Your task to perform on an android device: Clear the cart on ebay. Image 0: 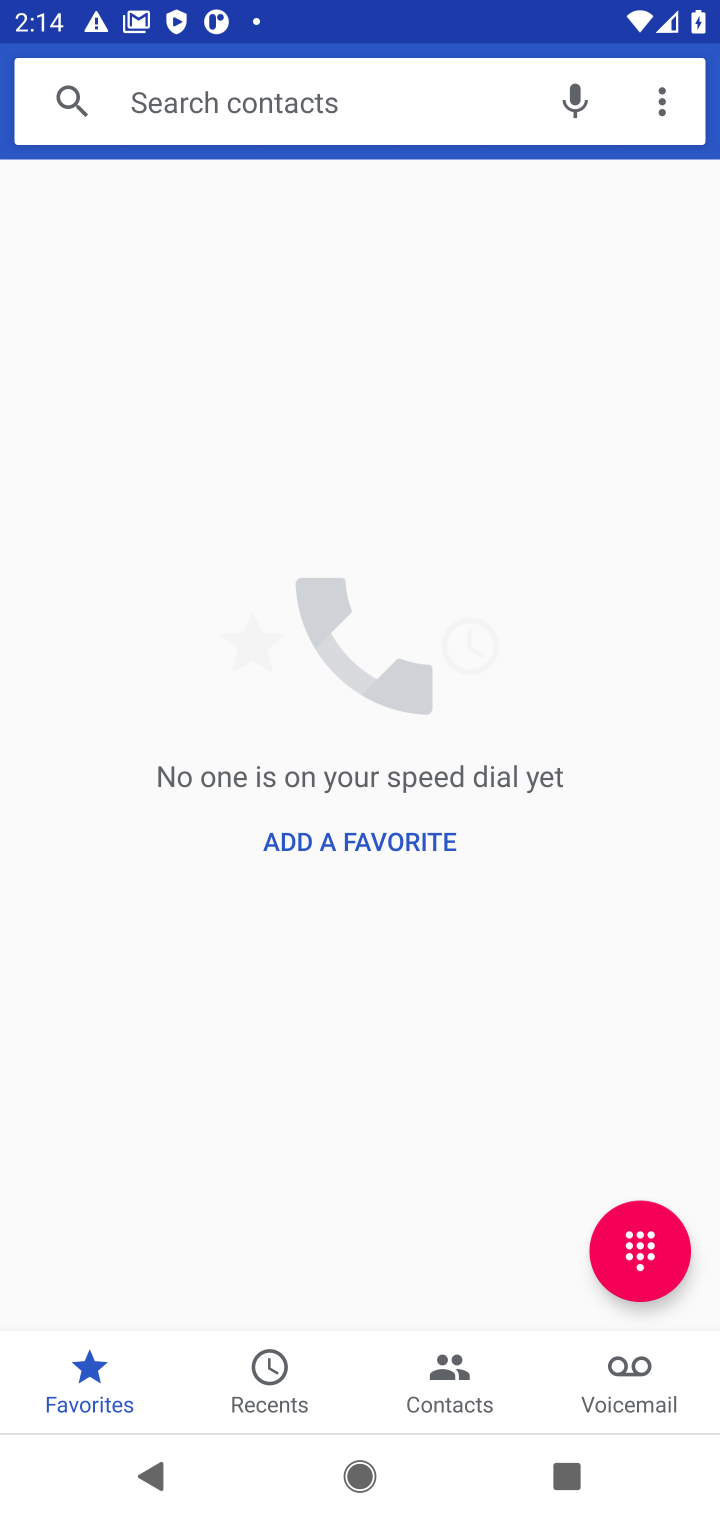
Step 0: press home button
Your task to perform on an android device: Clear the cart on ebay. Image 1: 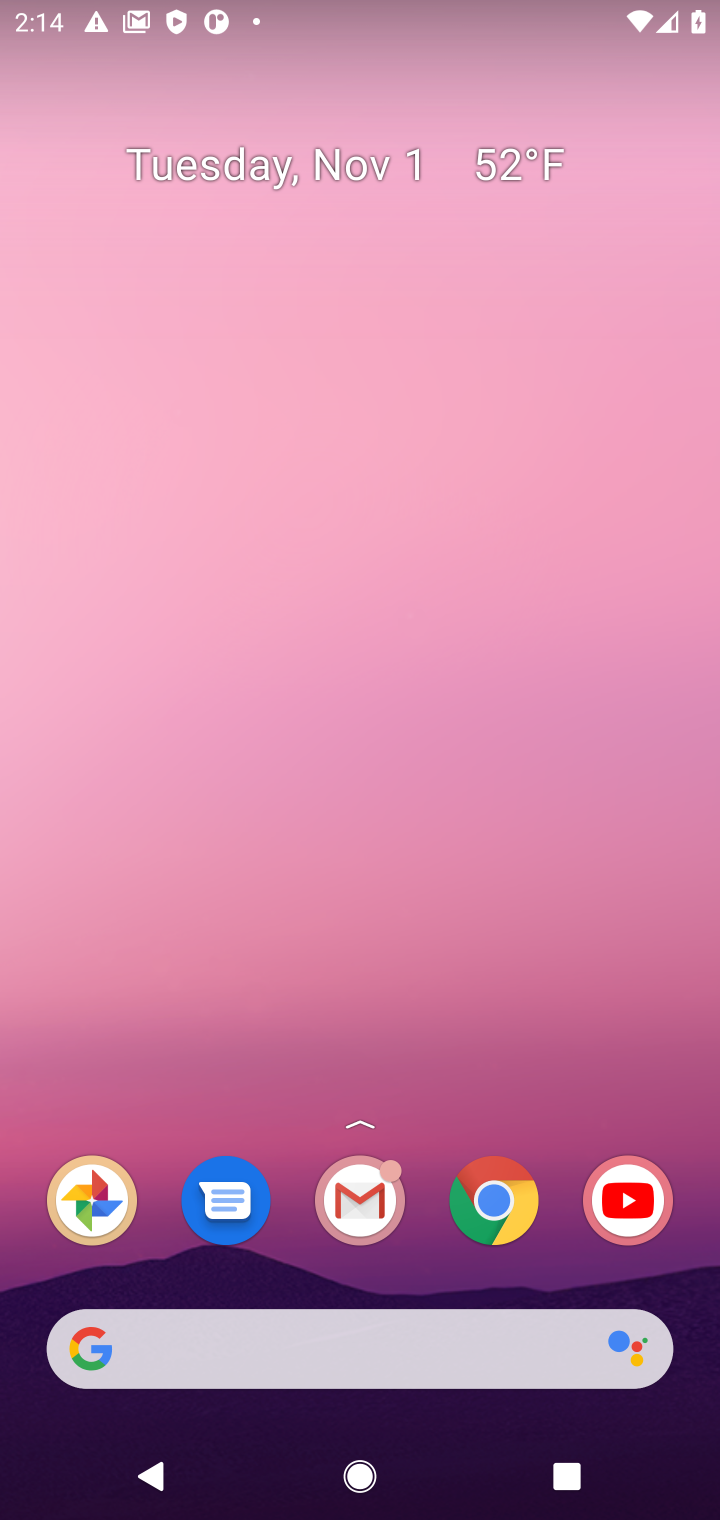
Step 1: click (79, 1351)
Your task to perform on an android device: Clear the cart on ebay. Image 2: 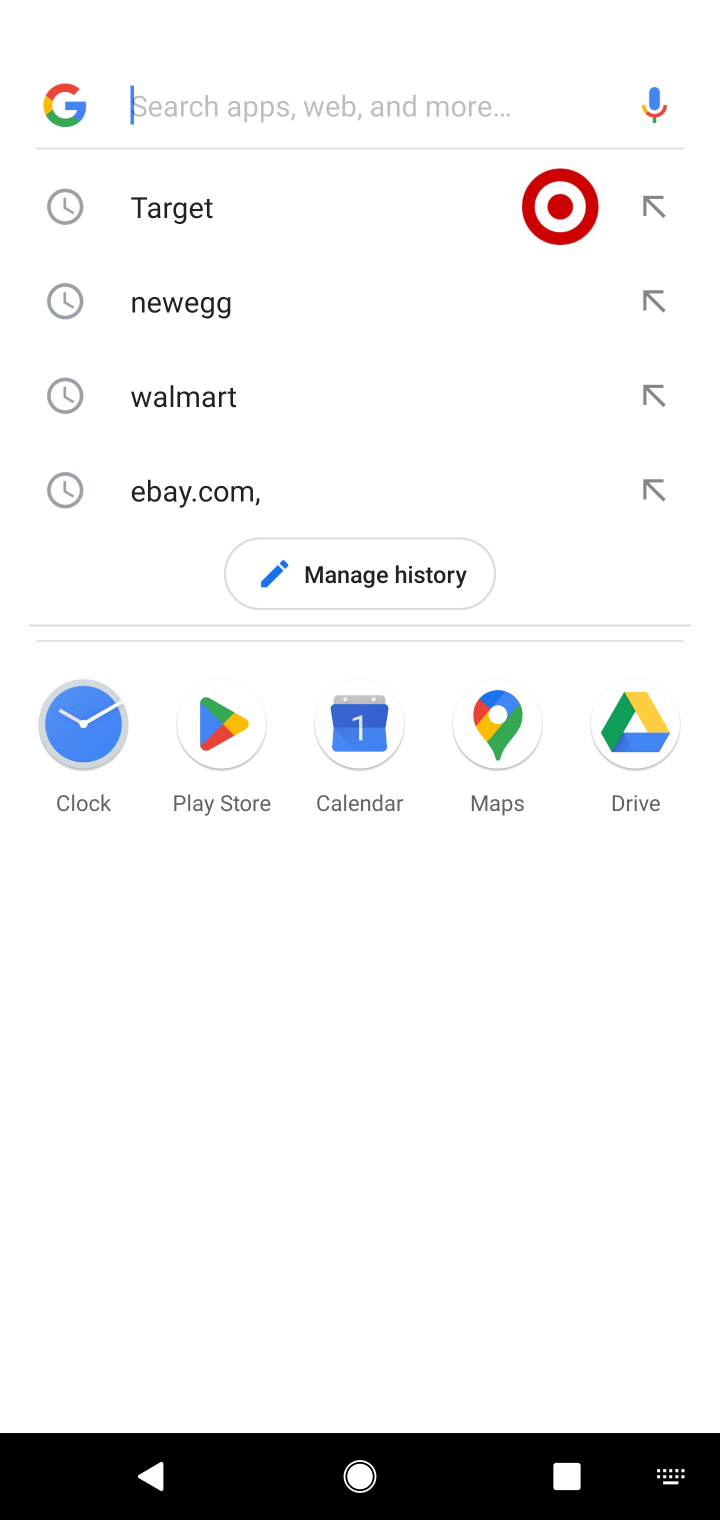
Step 2: click (283, 119)
Your task to perform on an android device: Clear the cart on ebay. Image 3: 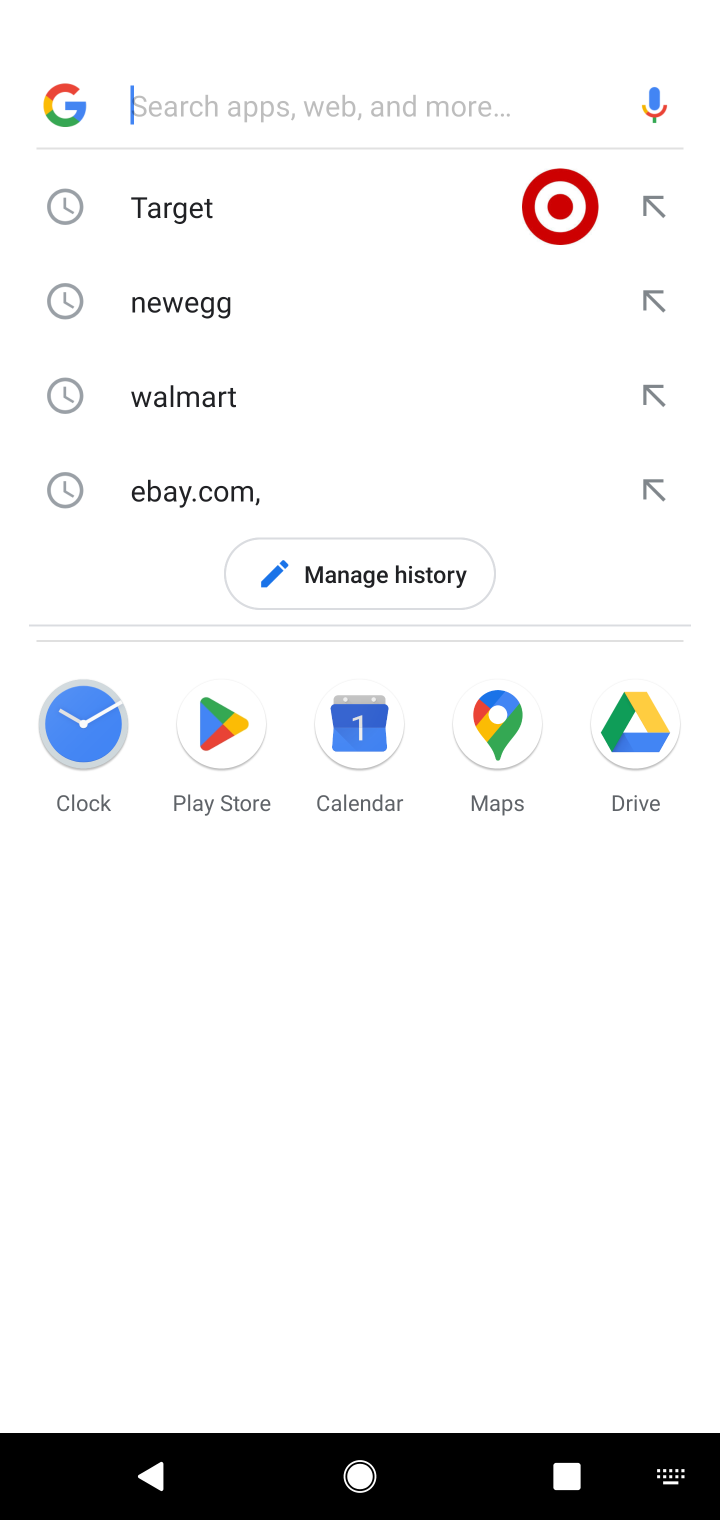
Step 3: type "ebay"
Your task to perform on an android device: Clear the cart on ebay. Image 4: 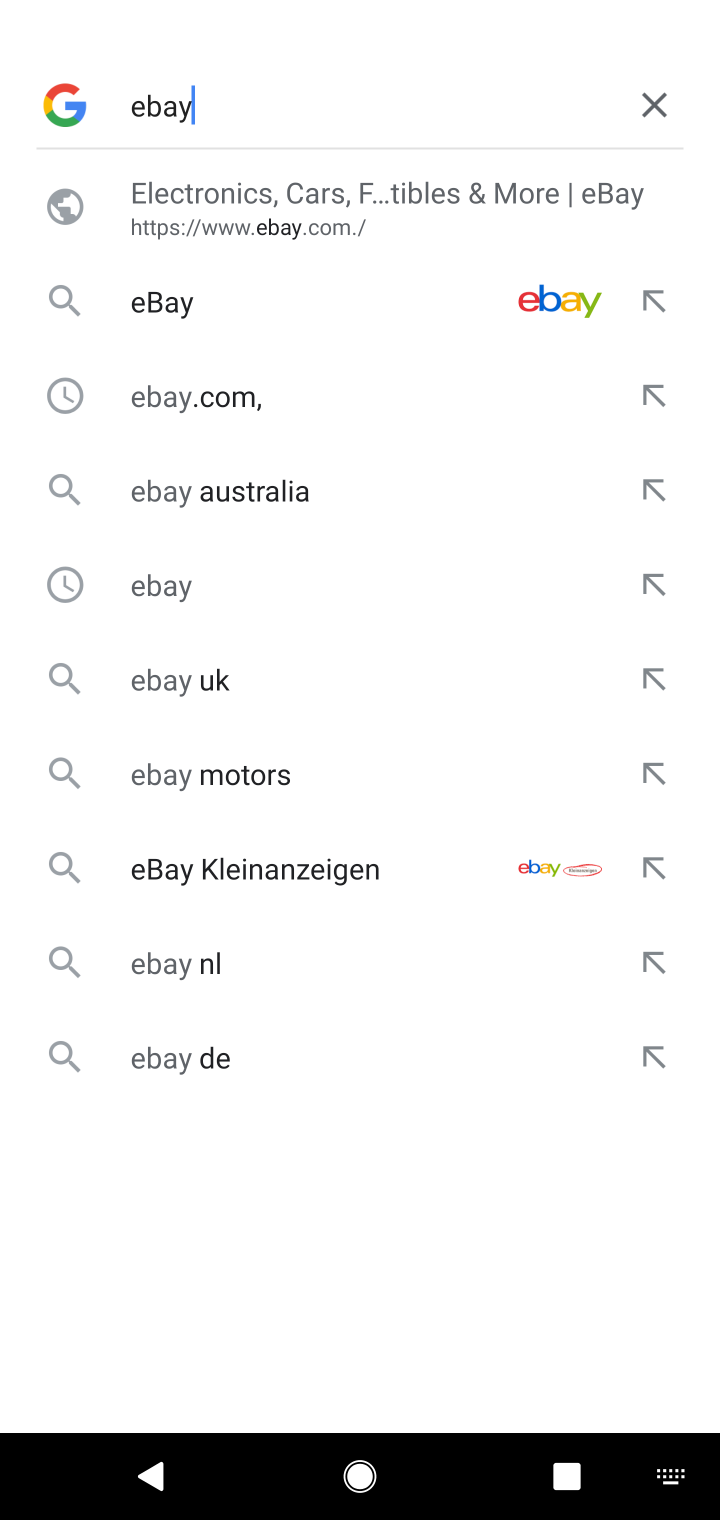
Step 4: click (274, 297)
Your task to perform on an android device: Clear the cart on ebay. Image 5: 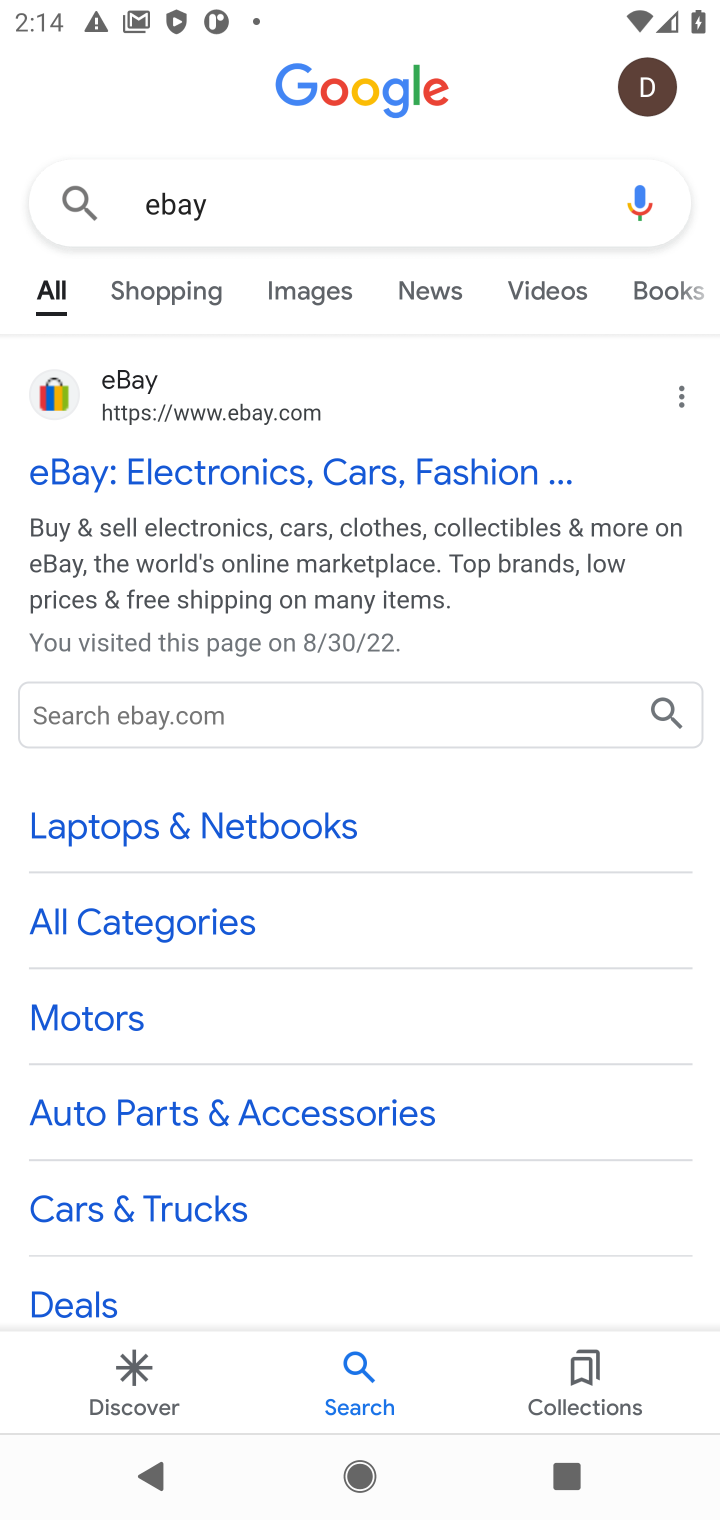
Step 5: click (302, 468)
Your task to perform on an android device: Clear the cart on ebay. Image 6: 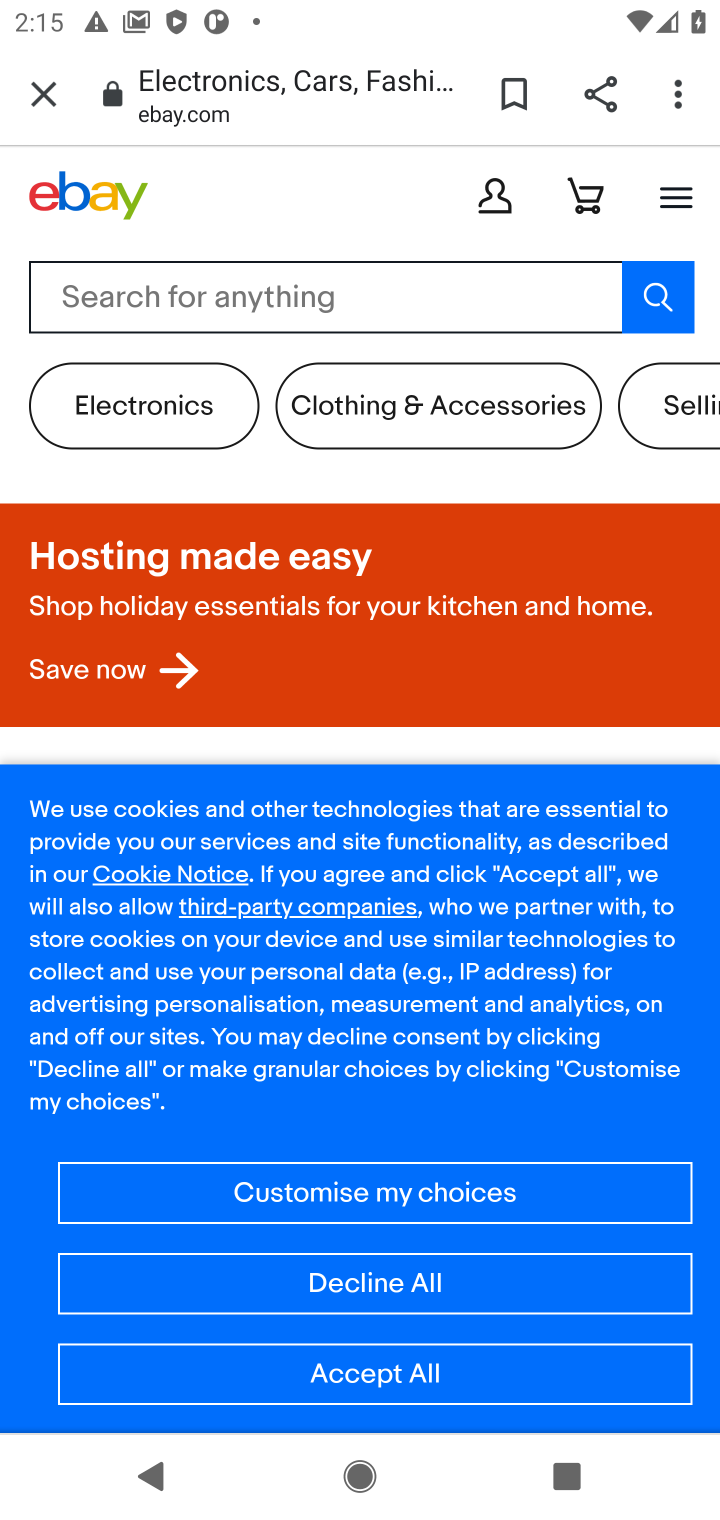
Step 6: click (350, 1388)
Your task to perform on an android device: Clear the cart on ebay. Image 7: 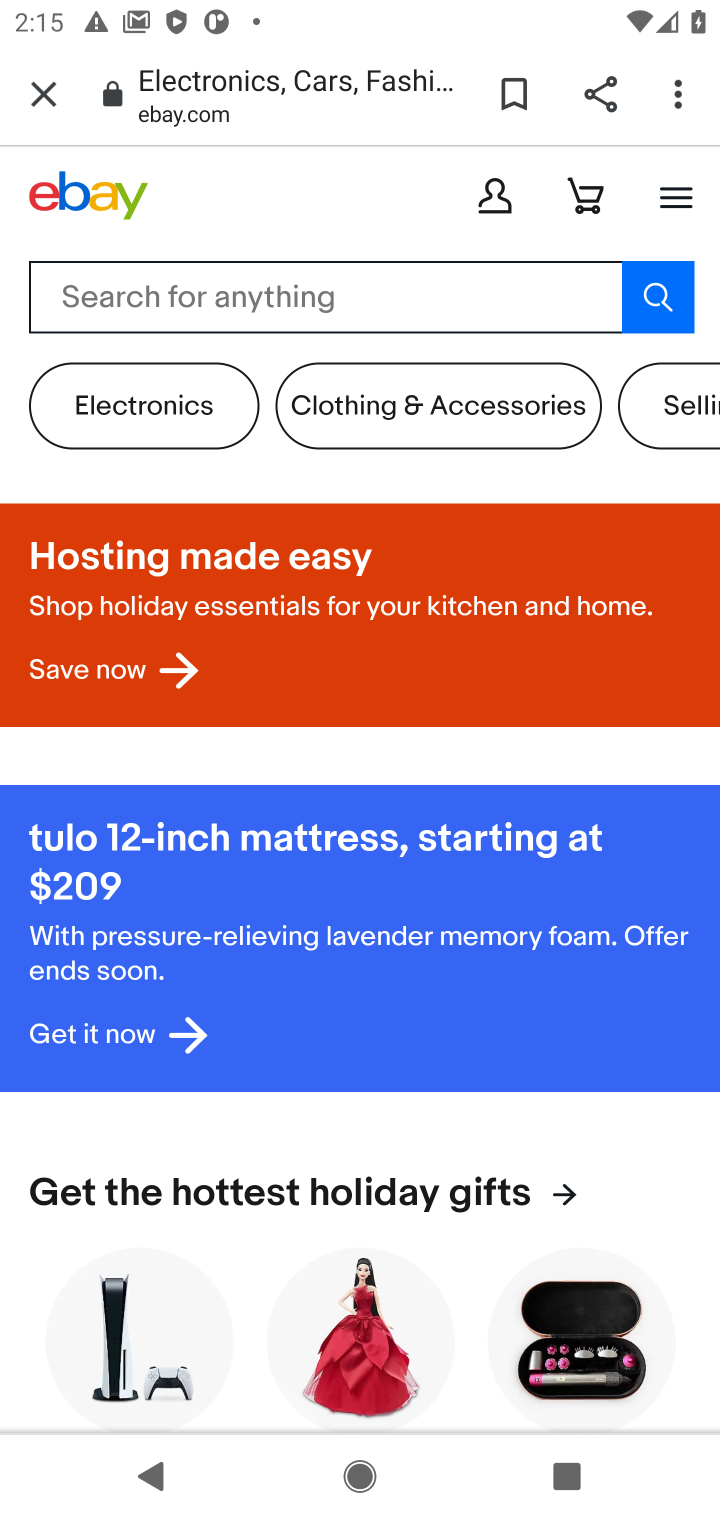
Step 7: click (132, 305)
Your task to perform on an android device: Clear the cart on ebay. Image 8: 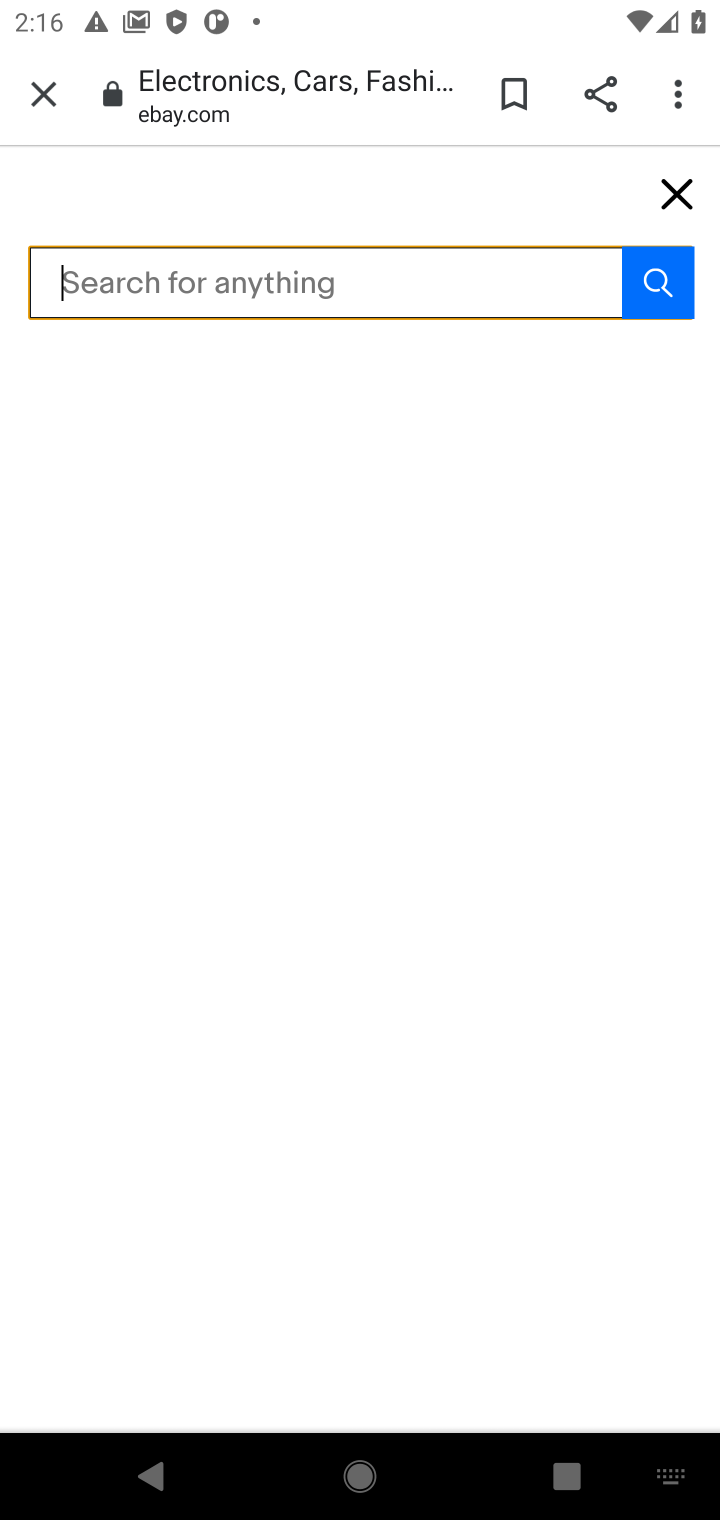
Step 8: type "ebay"
Your task to perform on an android device: Clear the cart on ebay. Image 9: 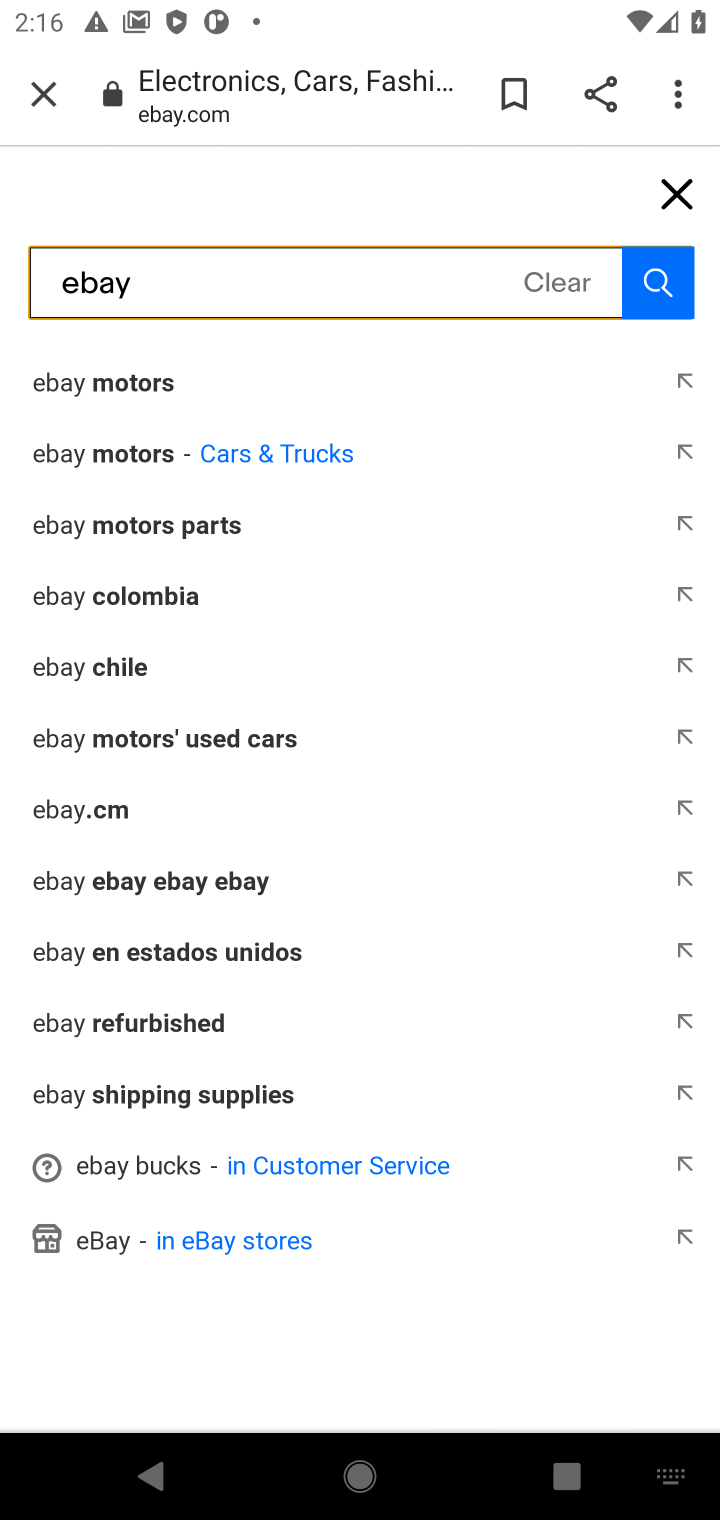
Step 9: click (140, 400)
Your task to perform on an android device: Clear the cart on ebay. Image 10: 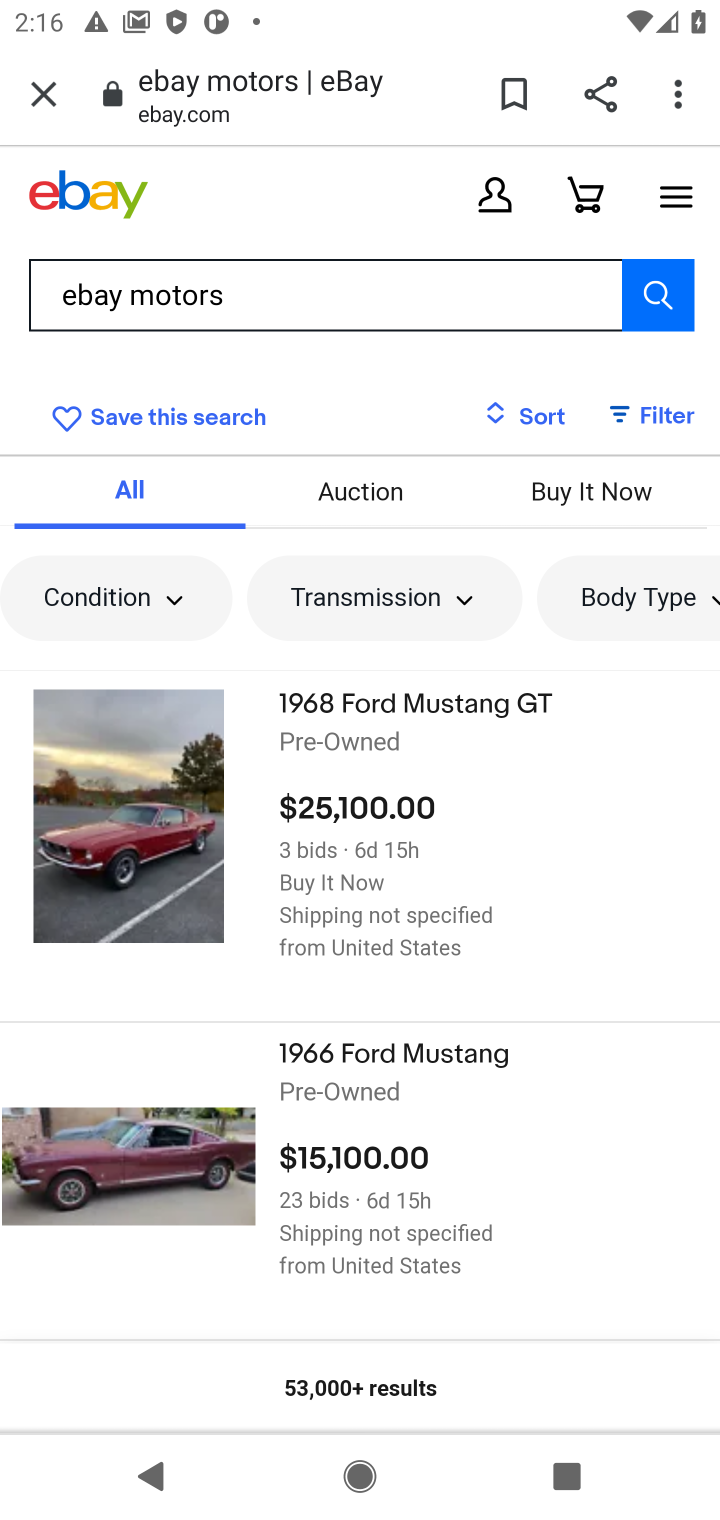
Step 10: click (381, 726)
Your task to perform on an android device: Clear the cart on ebay. Image 11: 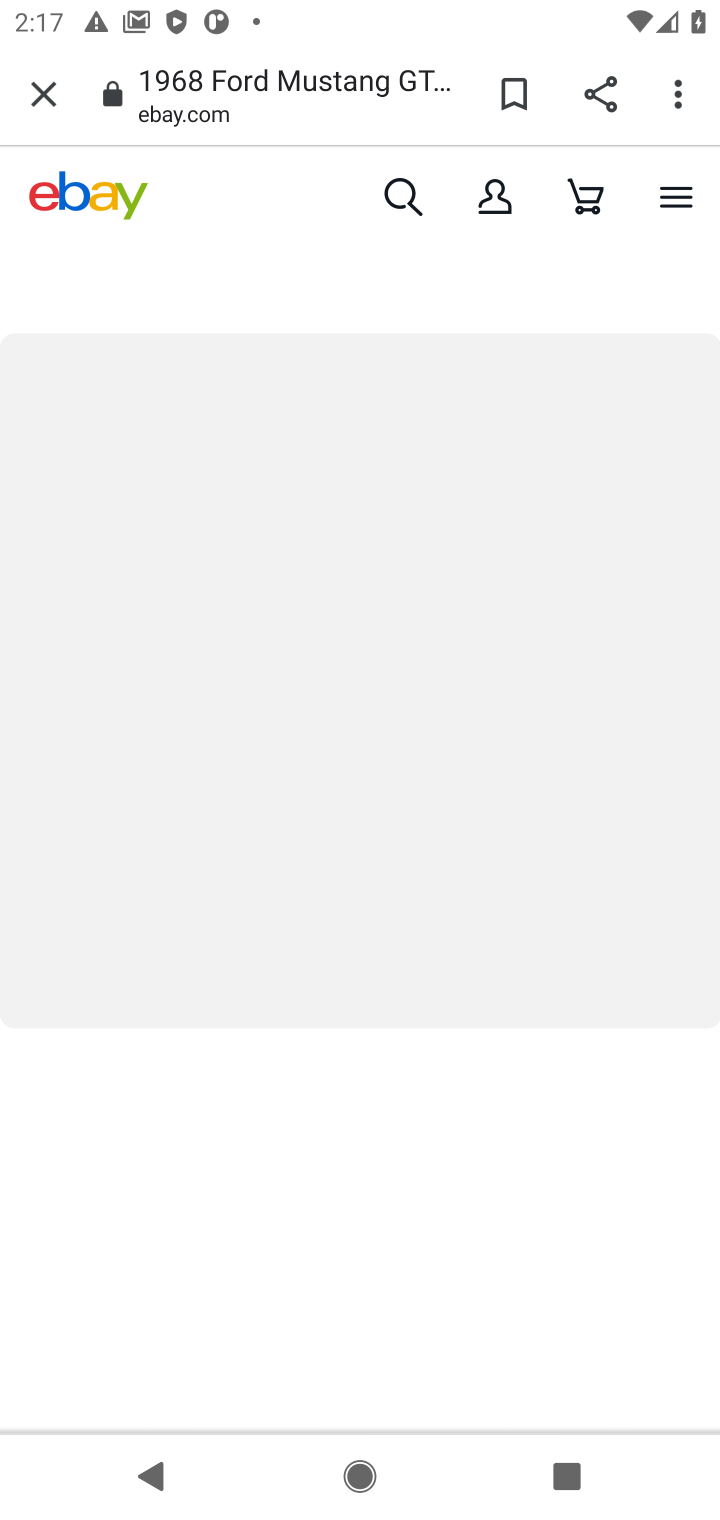
Step 11: click (580, 201)
Your task to perform on an android device: Clear the cart on ebay. Image 12: 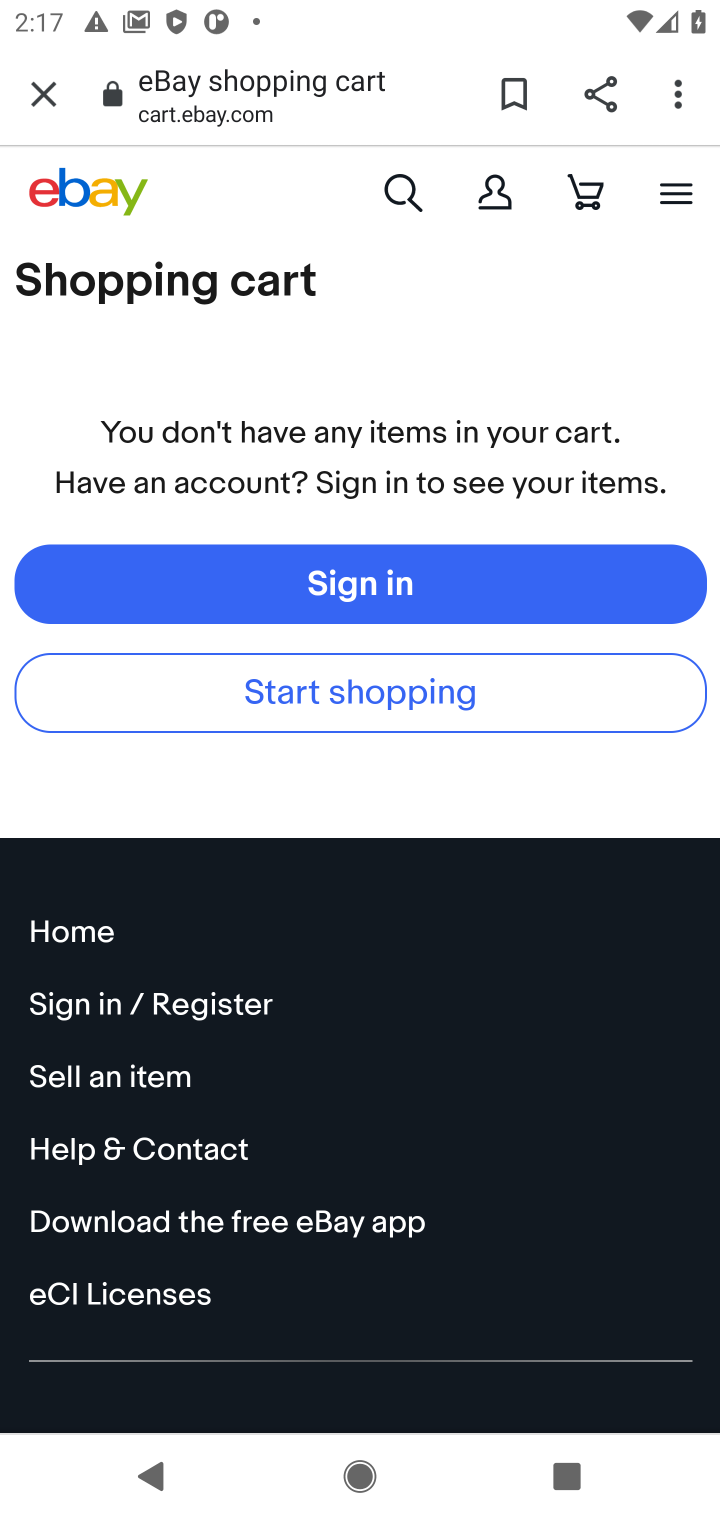
Step 12: task complete